Your task to perform on an android device: turn notification dots on Image 0: 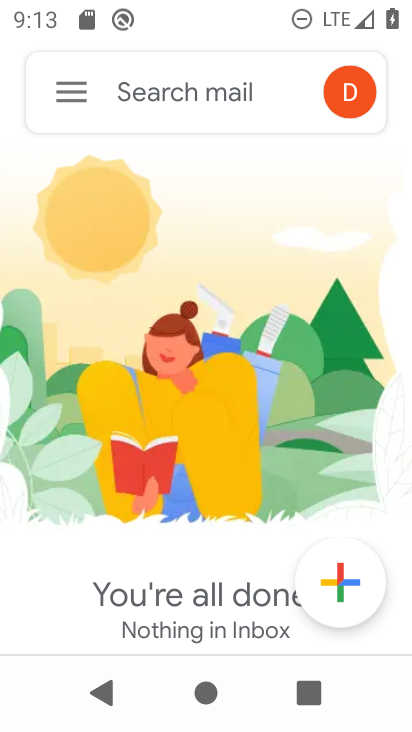
Step 0: press home button
Your task to perform on an android device: turn notification dots on Image 1: 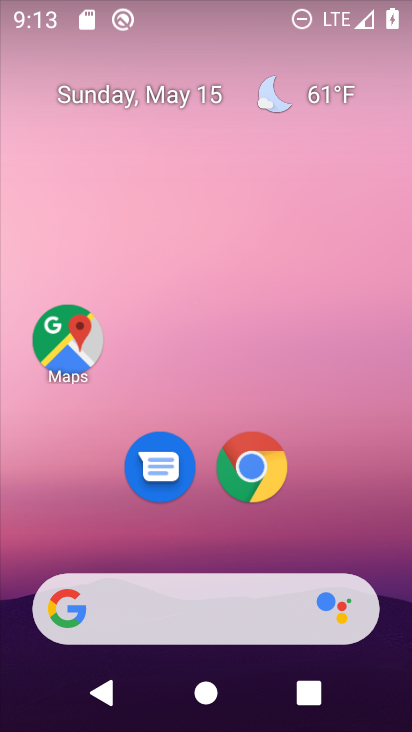
Step 1: drag from (199, 537) to (229, 88)
Your task to perform on an android device: turn notification dots on Image 2: 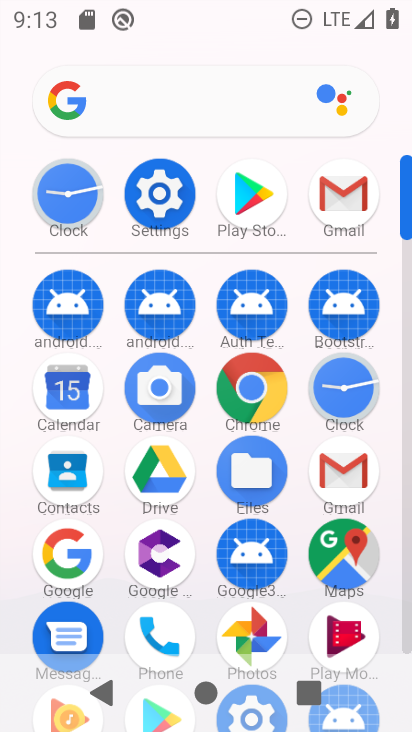
Step 2: click (148, 201)
Your task to perform on an android device: turn notification dots on Image 3: 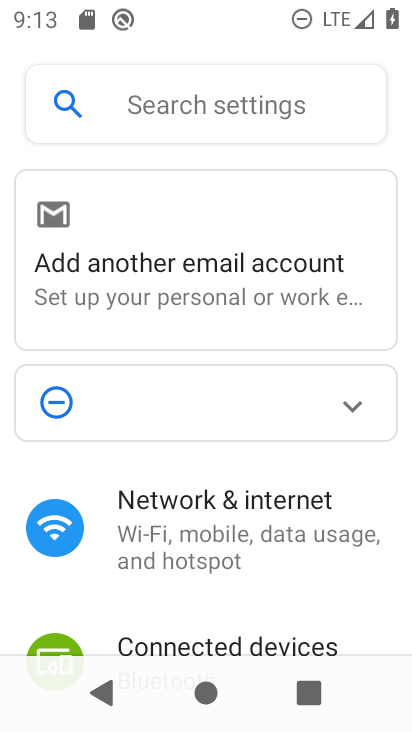
Step 3: drag from (172, 623) to (196, 154)
Your task to perform on an android device: turn notification dots on Image 4: 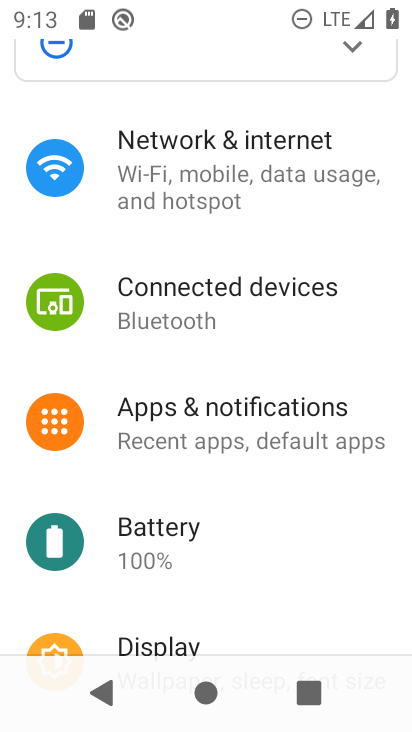
Step 4: click (244, 375)
Your task to perform on an android device: turn notification dots on Image 5: 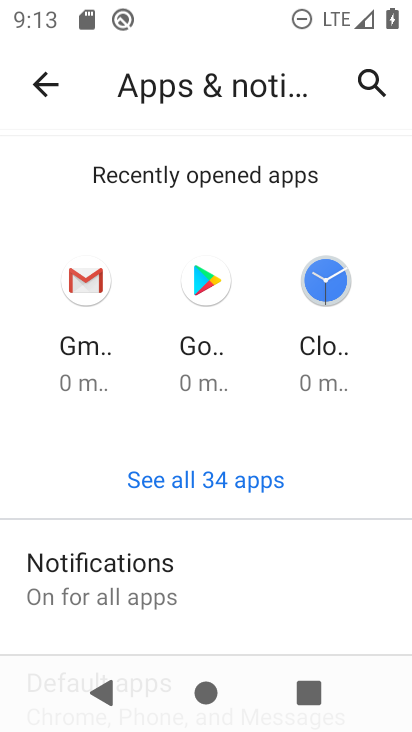
Step 5: drag from (234, 605) to (346, 38)
Your task to perform on an android device: turn notification dots on Image 6: 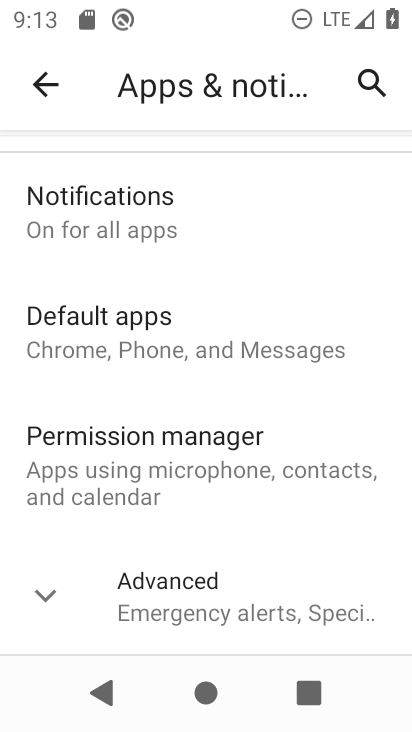
Step 6: click (237, 212)
Your task to perform on an android device: turn notification dots on Image 7: 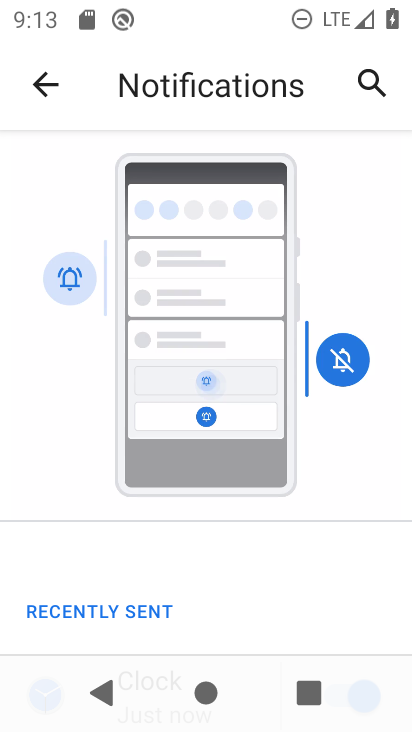
Step 7: drag from (216, 617) to (210, 58)
Your task to perform on an android device: turn notification dots on Image 8: 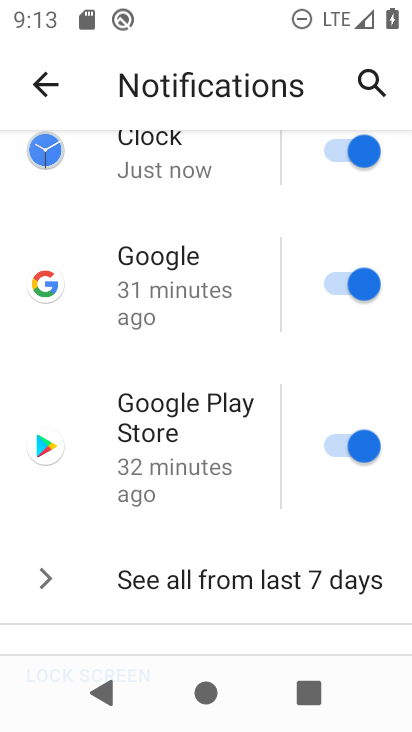
Step 8: drag from (117, 556) to (241, 336)
Your task to perform on an android device: turn notification dots on Image 9: 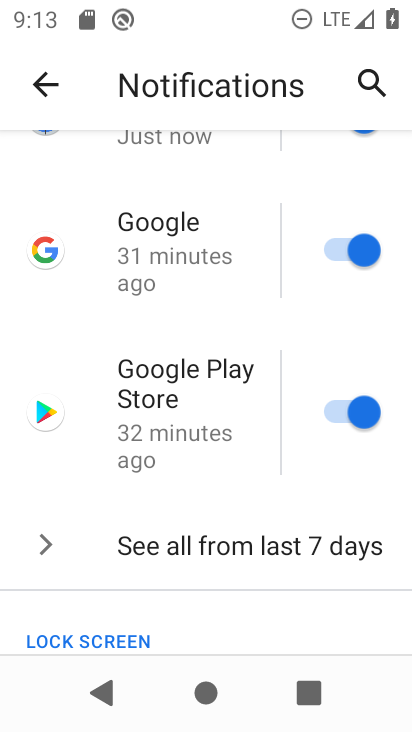
Step 9: drag from (159, 624) to (282, 61)
Your task to perform on an android device: turn notification dots on Image 10: 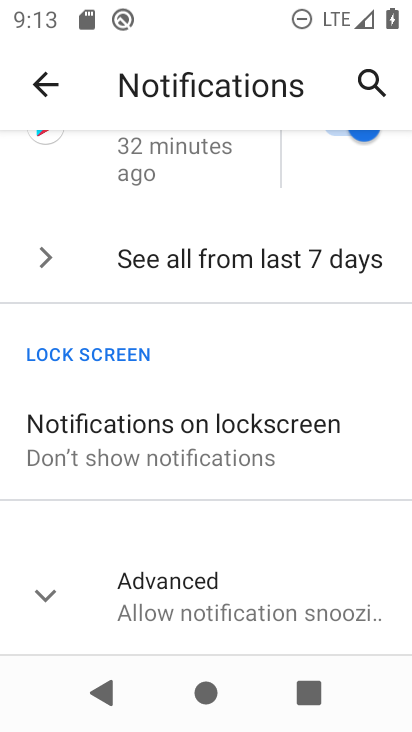
Step 10: click (187, 565)
Your task to perform on an android device: turn notification dots on Image 11: 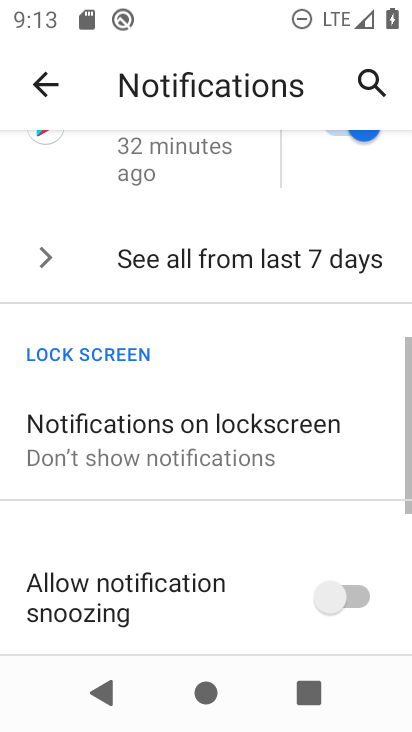
Step 11: task complete